Your task to perform on an android device: check android version Image 0: 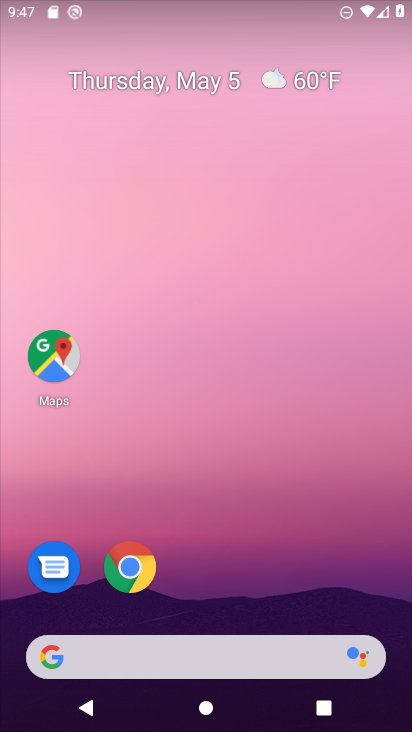
Step 0: drag from (220, 724) to (213, 308)
Your task to perform on an android device: check android version Image 1: 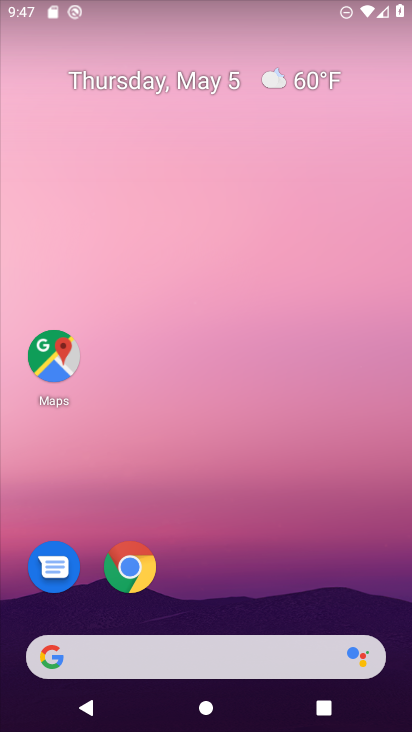
Step 1: drag from (221, 727) to (234, 22)
Your task to perform on an android device: check android version Image 2: 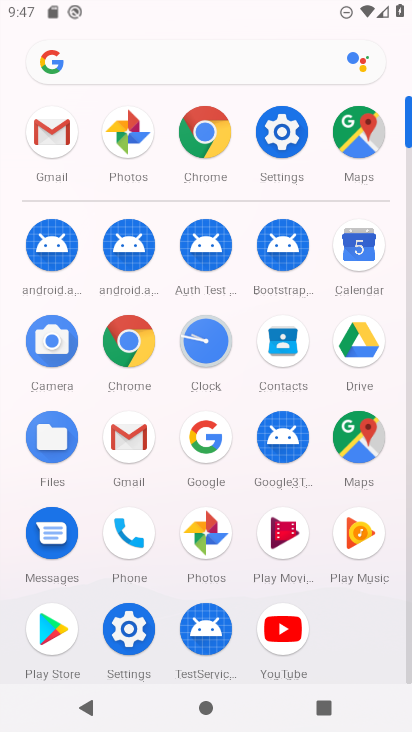
Step 2: click (287, 132)
Your task to perform on an android device: check android version Image 3: 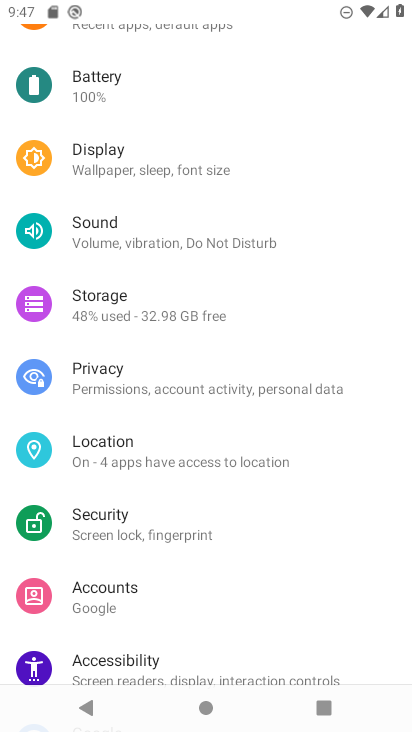
Step 3: drag from (121, 650) to (121, 107)
Your task to perform on an android device: check android version Image 4: 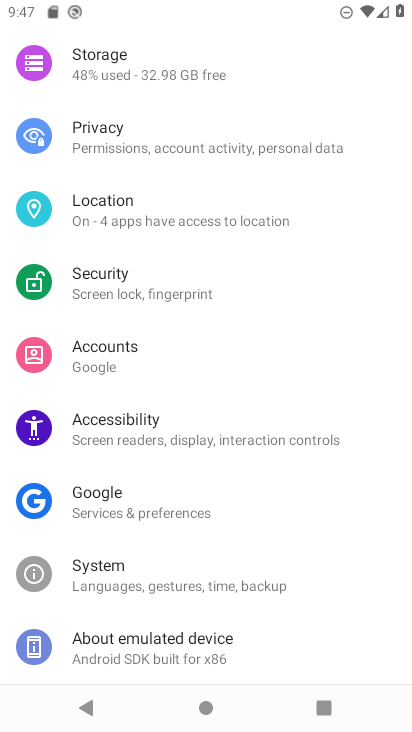
Step 4: click (118, 641)
Your task to perform on an android device: check android version Image 5: 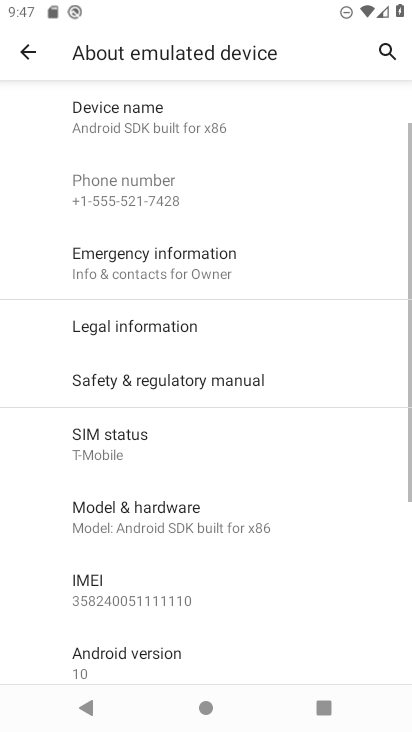
Step 5: click (128, 655)
Your task to perform on an android device: check android version Image 6: 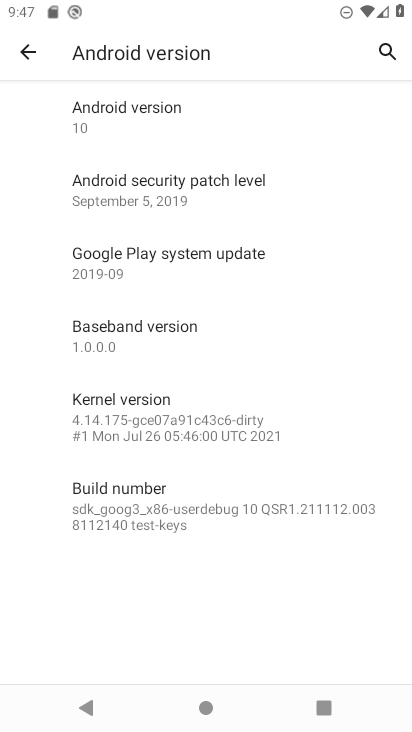
Step 6: task complete